Your task to perform on an android device: Search for flights from Barcelona to Boston Image 0: 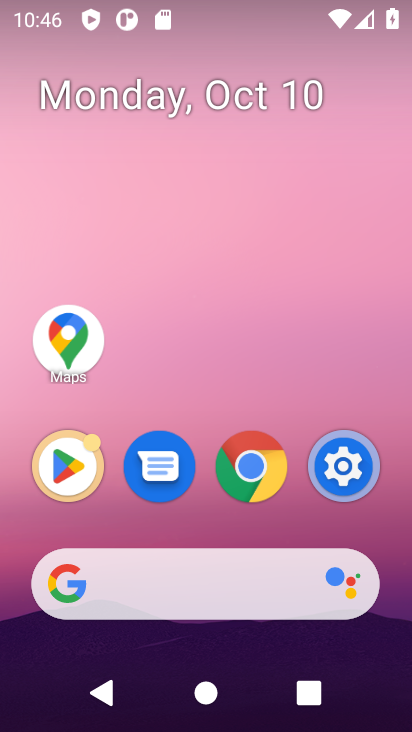
Step 0: press home button
Your task to perform on an android device: Search for flights from Barcelona to Boston Image 1: 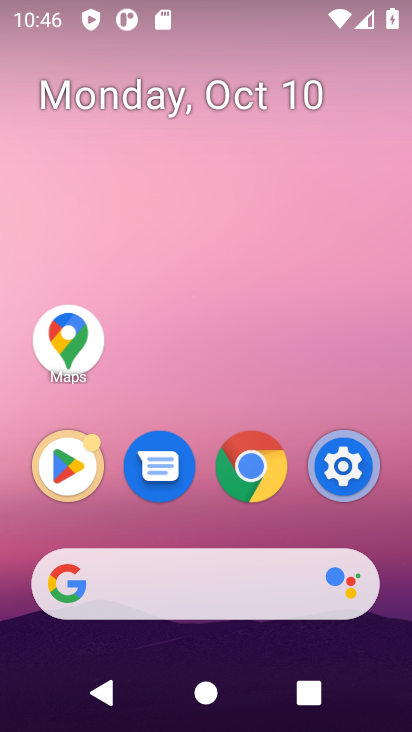
Step 1: click (65, 588)
Your task to perform on an android device: Search for flights from Barcelona to Boston Image 2: 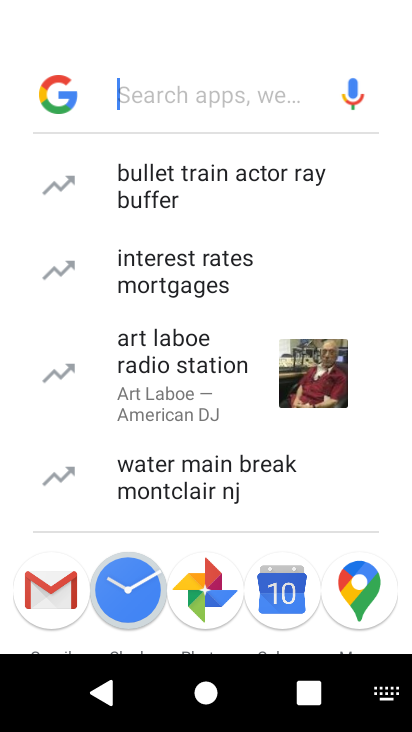
Step 2: type "flights from Barcelona to Boston"
Your task to perform on an android device: Search for flights from Barcelona to Boston Image 3: 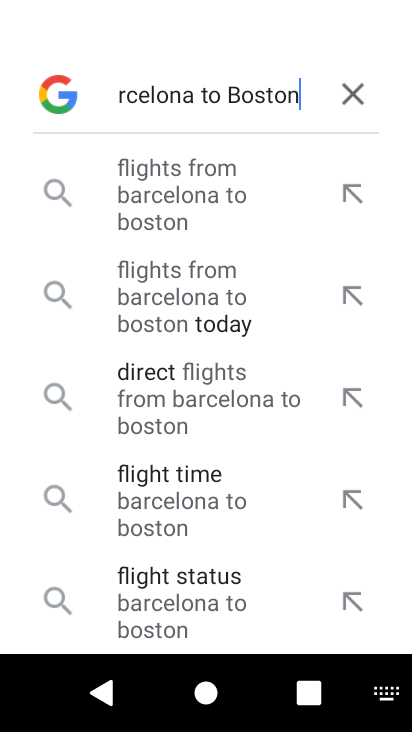
Step 3: press enter
Your task to perform on an android device: Search for flights from Barcelona to Boston Image 4: 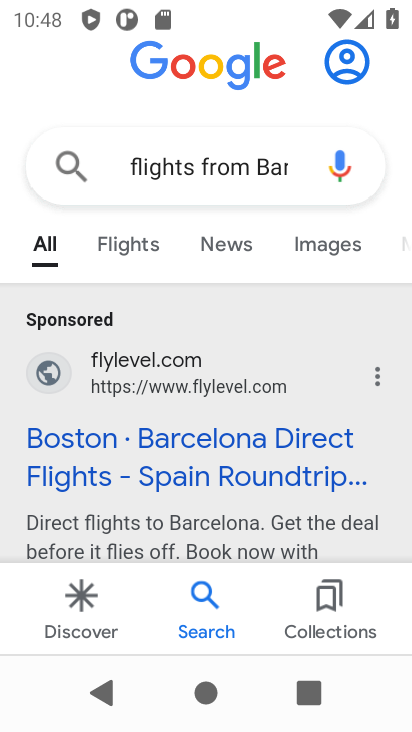
Step 4: task complete